Your task to perform on an android device: What's the weather going to be this weekend? Image 0: 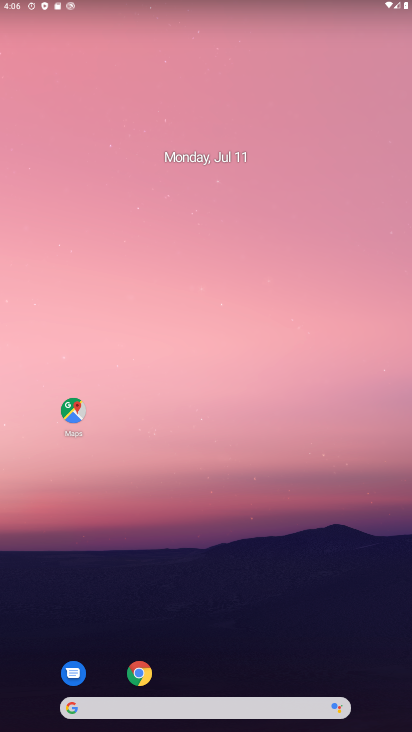
Step 0: drag from (225, 631) to (311, 97)
Your task to perform on an android device: What's the weather going to be this weekend? Image 1: 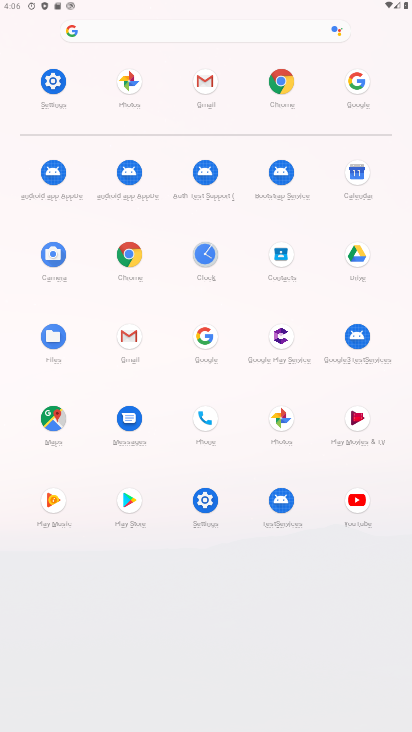
Step 1: click (355, 167)
Your task to perform on an android device: What's the weather going to be this weekend? Image 2: 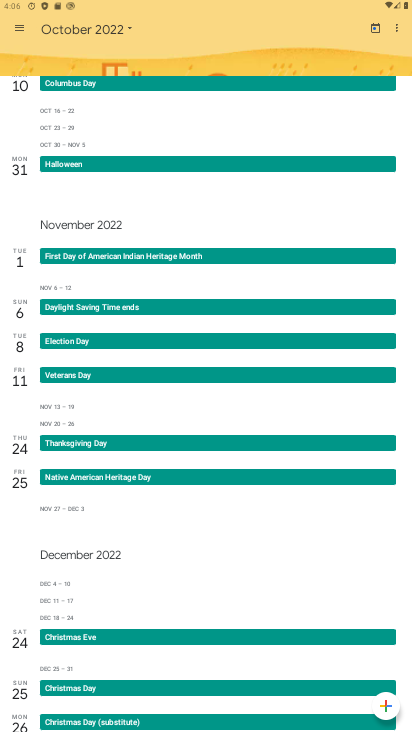
Step 2: press home button
Your task to perform on an android device: What's the weather going to be this weekend? Image 3: 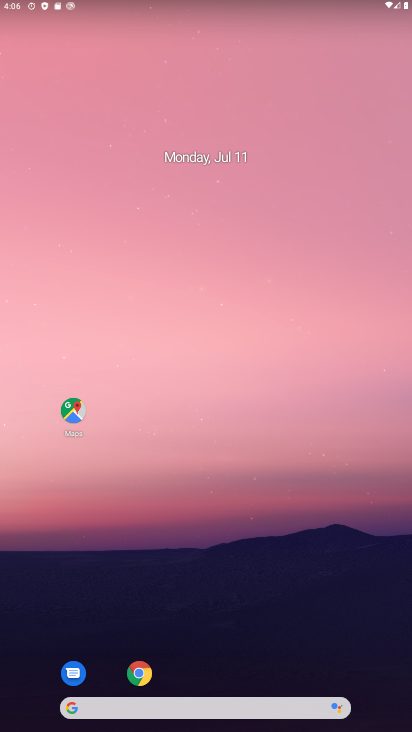
Step 3: click (141, 672)
Your task to perform on an android device: What's the weather going to be this weekend? Image 4: 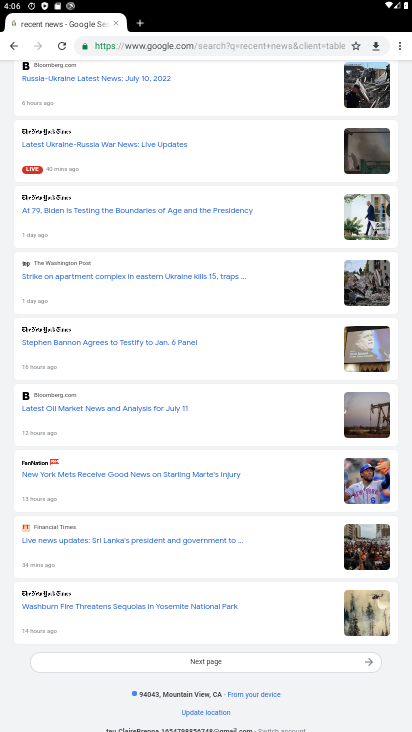
Step 4: click (136, 48)
Your task to perform on an android device: What's the weather going to be this weekend? Image 5: 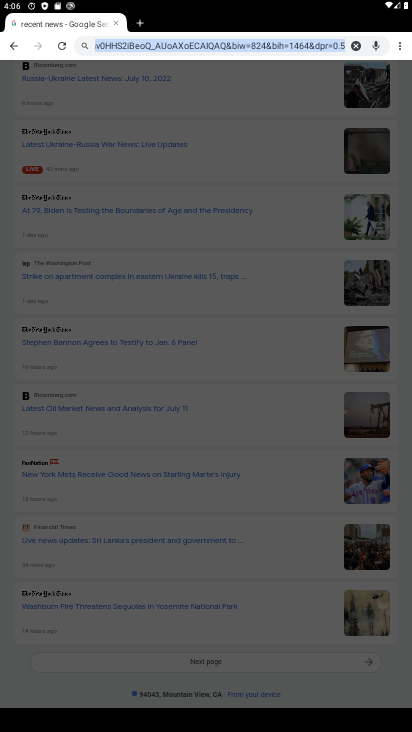
Step 5: type "What's the weather going to be this weekend?"
Your task to perform on an android device: What's the weather going to be this weekend? Image 6: 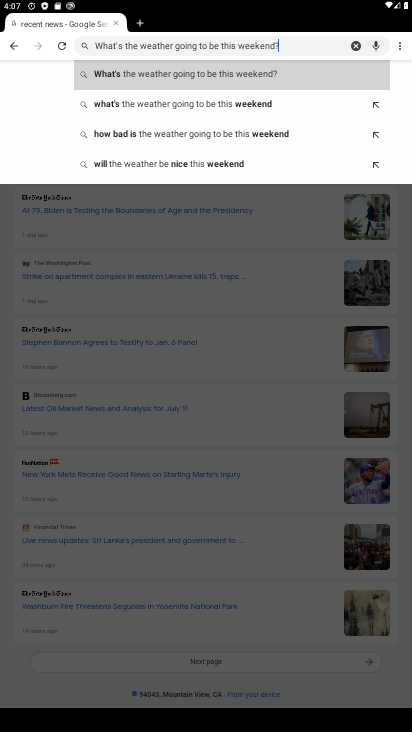
Step 6: click (354, 46)
Your task to perform on an android device: What's the weather going to be this weekend? Image 7: 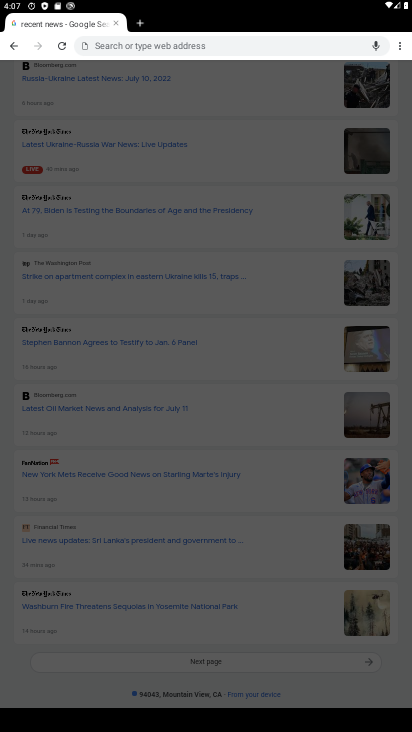
Step 7: click (215, 43)
Your task to perform on an android device: What's the weather going to be this weekend? Image 8: 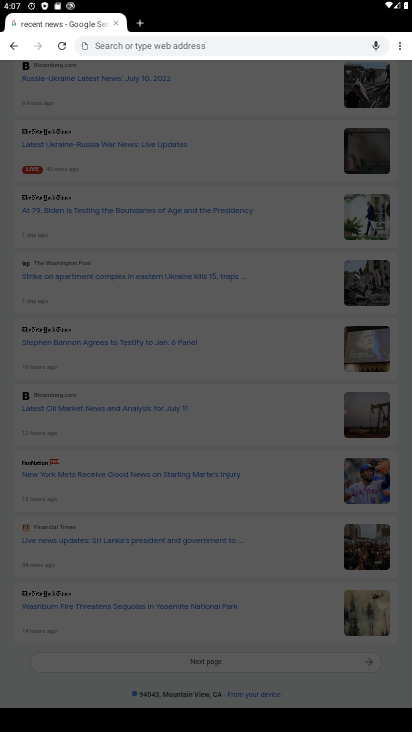
Step 8: type "What's the weather going to be this weekend?"
Your task to perform on an android device: What's the weather going to be this weekend? Image 9: 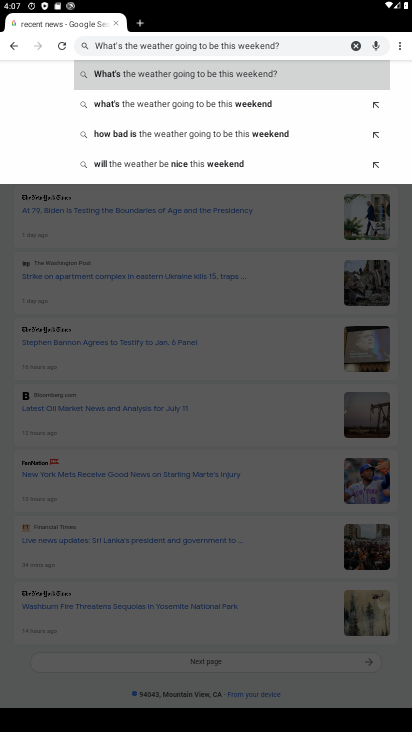
Step 9: click (236, 73)
Your task to perform on an android device: What's the weather going to be this weekend? Image 10: 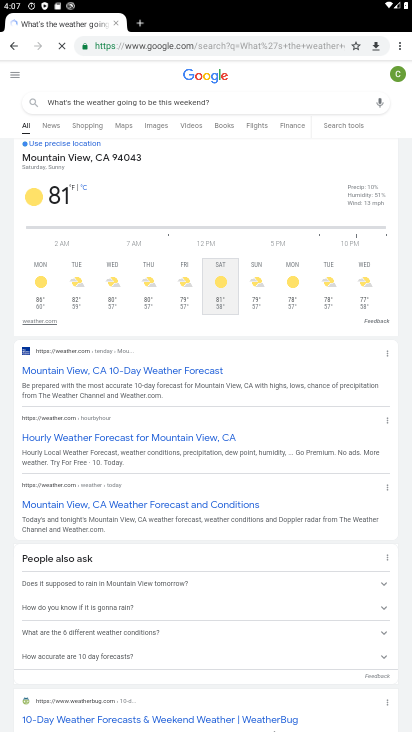
Step 10: task complete